Your task to perform on an android device: open device folders in google photos Image 0: 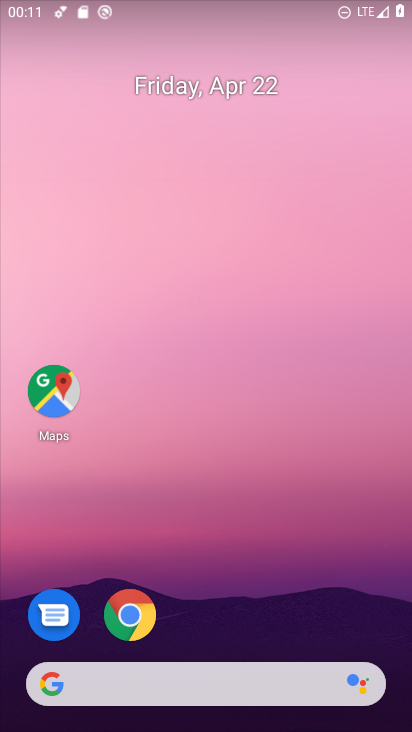
Step 0: drag from (218, 649) to (237, 54)
Your task to perform on an android device: open device folders in google photos Image 1: 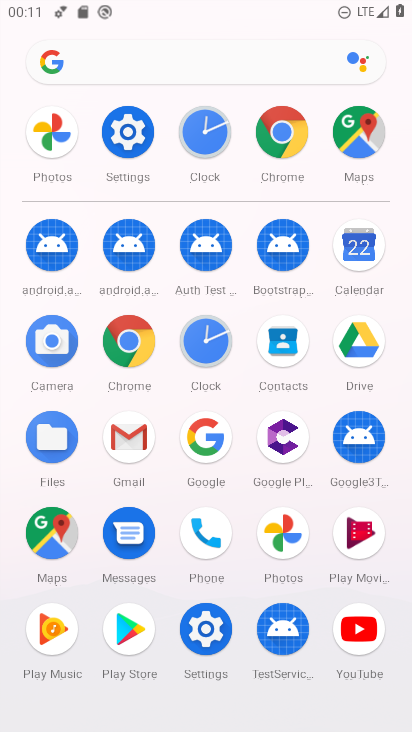
Step 1: click (282, 520)
Your task to perform on an android device: open device folders in google photos Image 2: 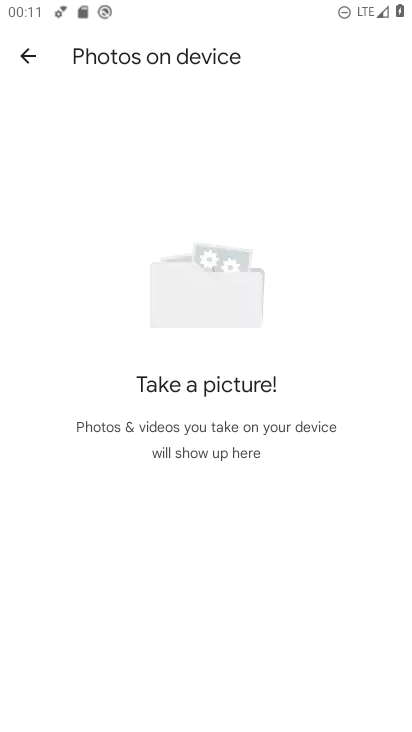
Step 2: task complete